Your task to perform on an android device: turn off improve location accuracy Image 0: 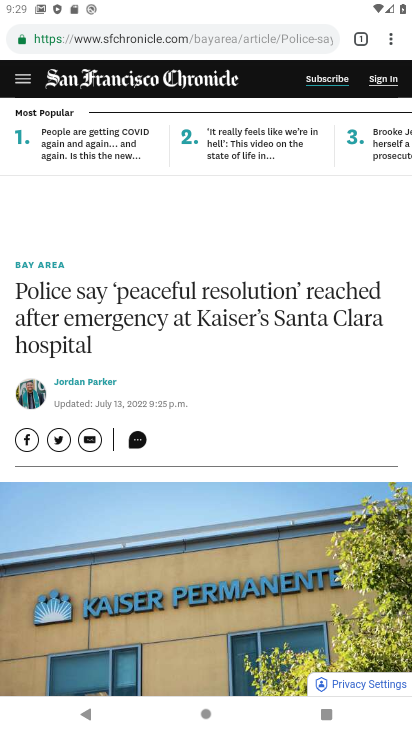
Step 0: press home button
Your task to perform on an android device: turn off improve location accuracy Image 1: 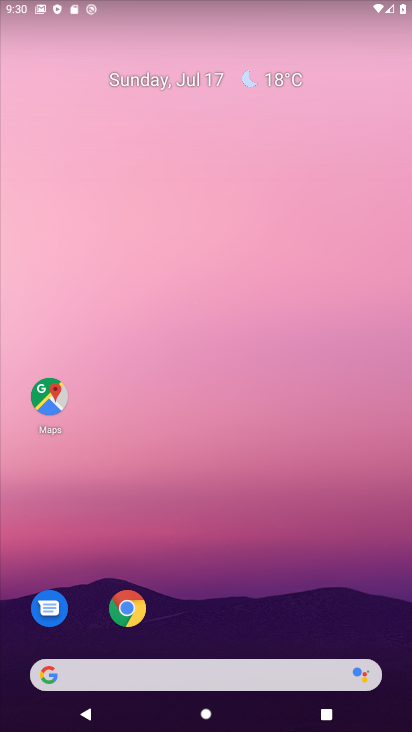
Step 1: drag from (199, 542) to (271, 283)
Your task to perform on an android device: turn off improve location accuracy Image 2: 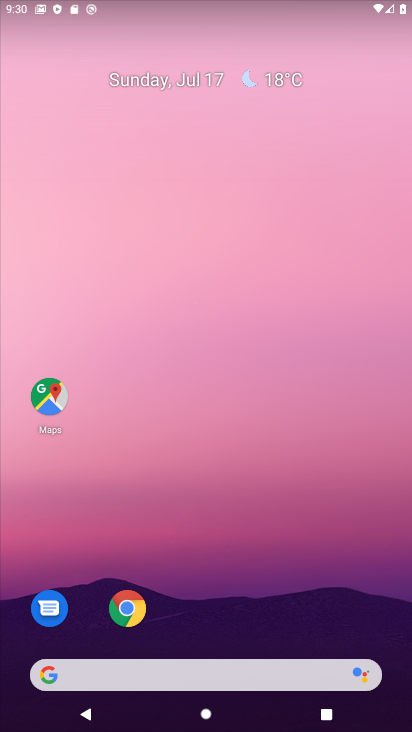
Step 2: drag from (243, 499) to (243, 239)
Your task to perform on an android device: turn off improve location accuracy Image 3: 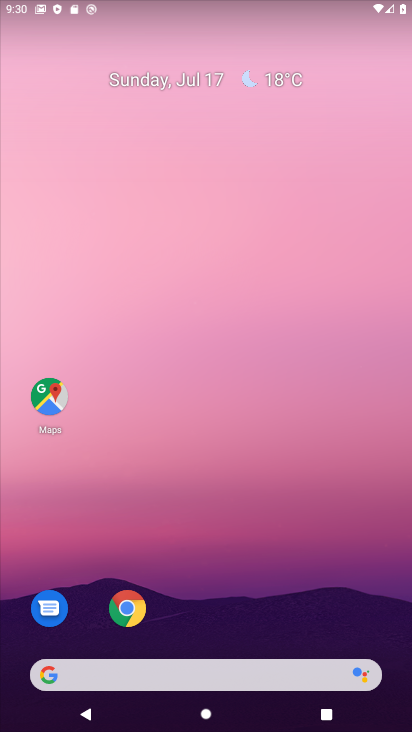
Step 3: drag from (229, 621) to (252, 197)
Your task to perform on an android device: turn off improve location accuracy Image 4: 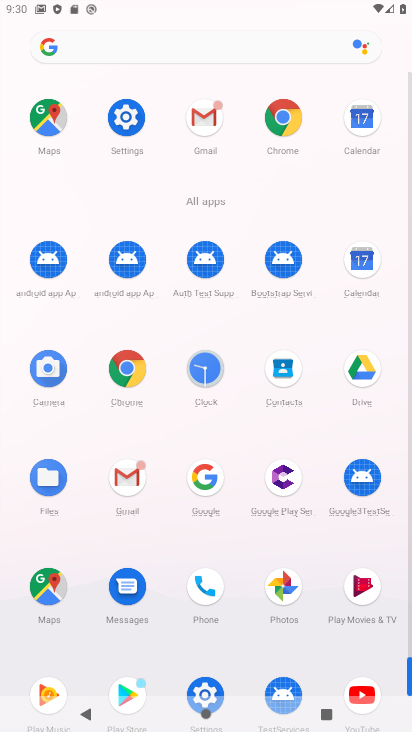
Step 4: drag from (257, 480) to (256, 323)
Your task to perform on an android device: turn off improve location accuracy Image 5: 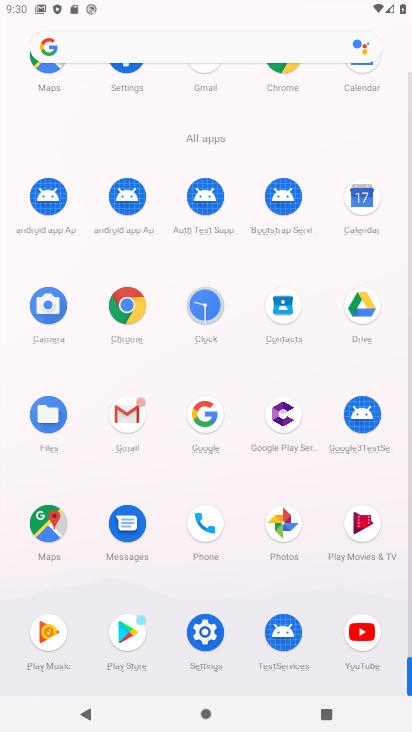
Step 5: click (207, 631)
Your task to perform on an android device: turn off improve location accuracy Image 6: 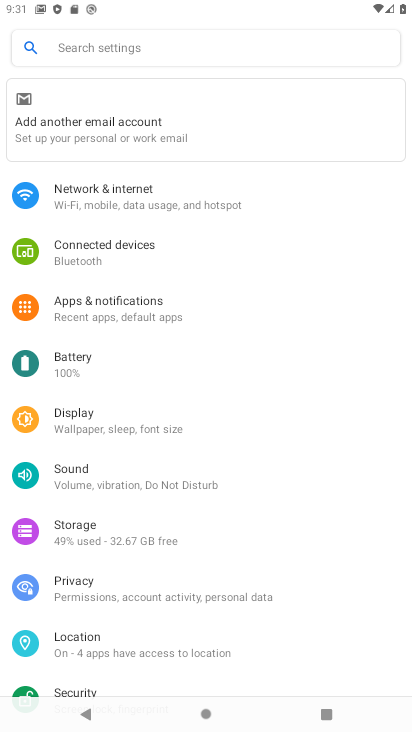
Step 6: click (65, 648)
Your task to perform on an android device: turn off improve location accuracy Image 7: 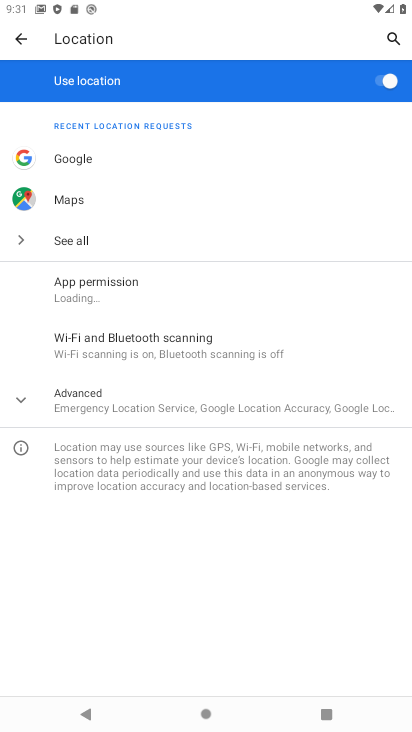
Step 7: click (387, 79)
Your task to perform on an android device: turn off improve location accuracy Image 8: 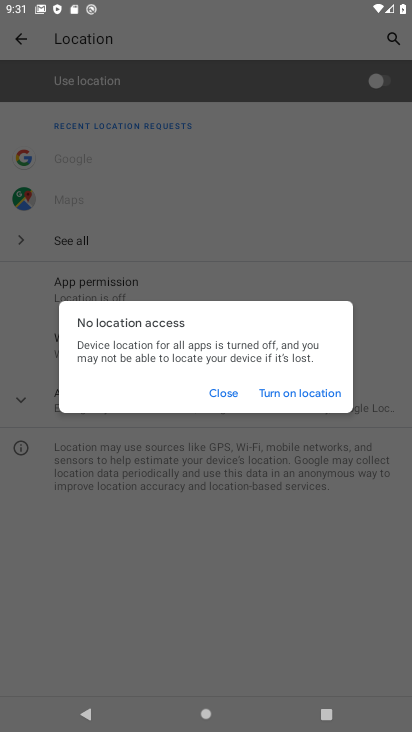
Step 8: task complete